Your task to perform on an android device: toggle wifi Image 0: 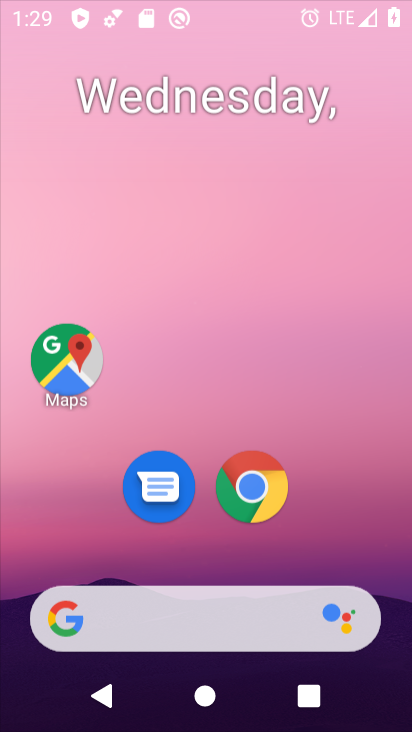
Step 0: click (259, 97)
Your task to perform on an android device: toggle wifi Image 1: 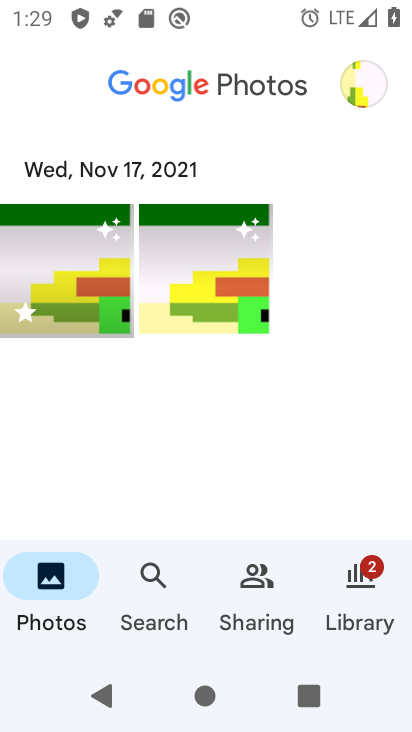
Step 1: press home button
Your task to perform on an android device: toggle wifi Image 2: 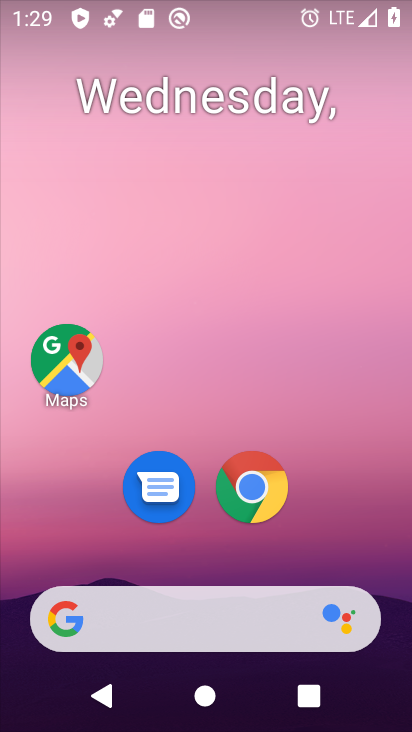
Step 2: drag from (388, 605) to (253, 50)
Your task to perform on an android device: toggle wifi Image 3: 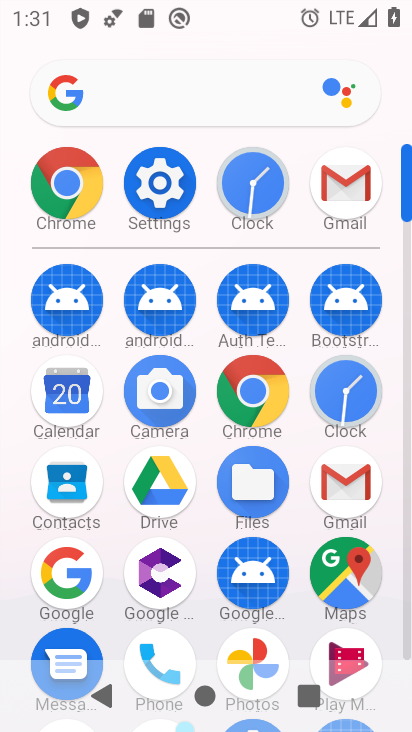
Step 3: drag from (211, 4) to (253, 527)
Your task to perform on an android device: toggle wifi Image 4: 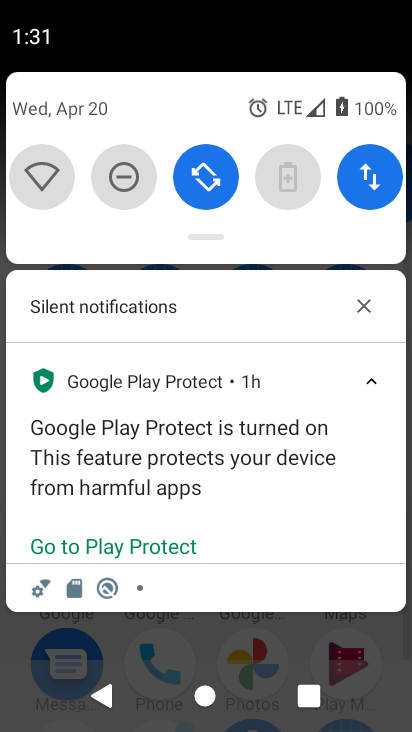
Step 4: click (49, 181)
Your task to perform on an android device: toggle wifi Image 5: 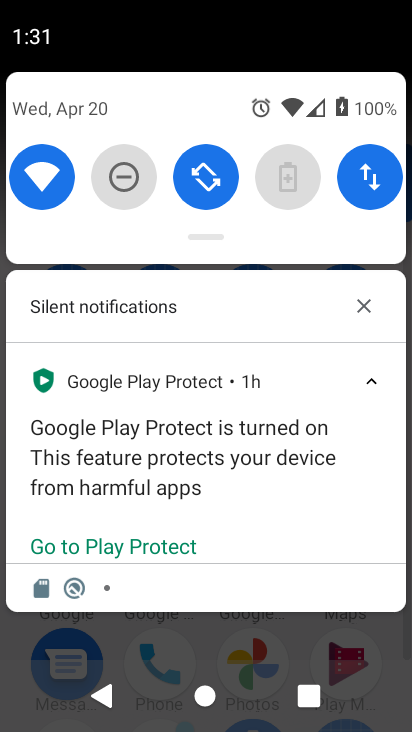
Step 5: task complete